Your task to perform on an android device: Open my contact list Image 0: 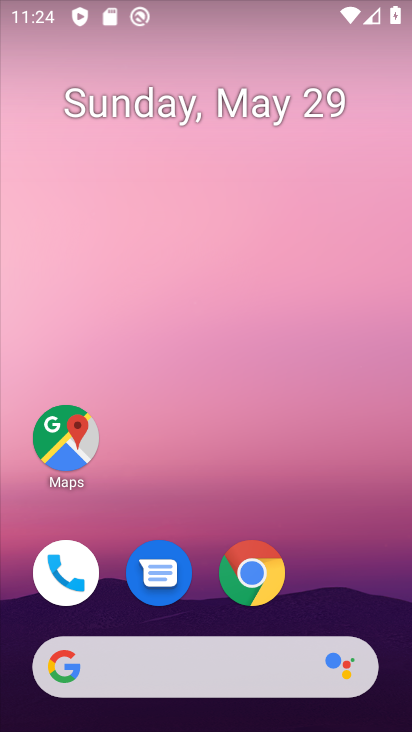
Step 0: drag from (344, 612) to (290, 117)
Your task to perform on an android device: Open my contact list Image 1: 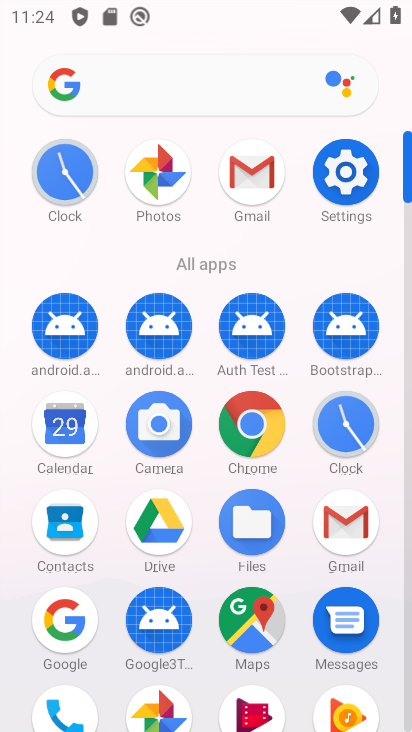
Step 1: click (75, 524)
Your task to perform on an android device: Open my contact list Image 2: 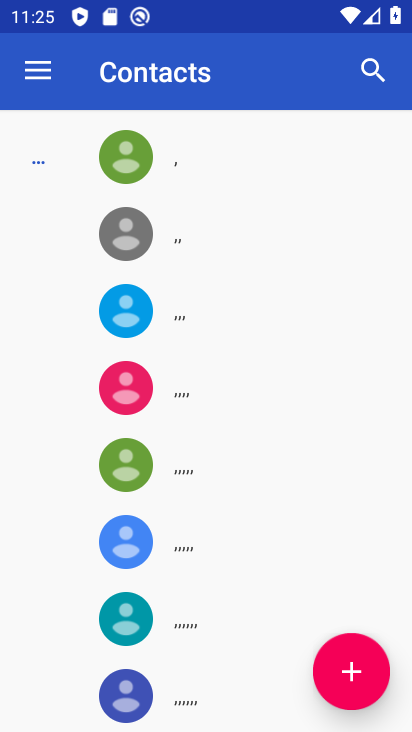
Step 2: task complete